Your task to perform on an android device: Open the web browser Image 0: 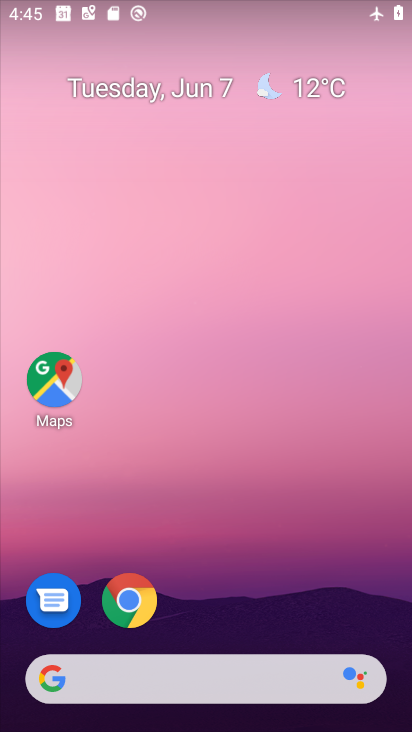
Step 0: click (126, 601)
Your task to perform on an android device: Open the web browser Image 1: 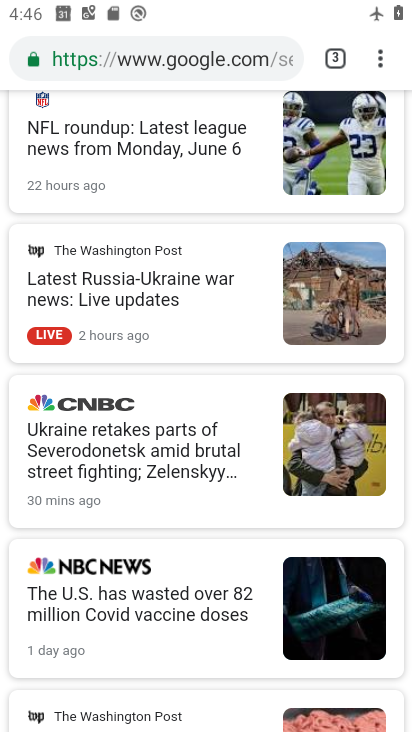
Step 1: task complete